Your task to perform on an android device: check the backup settings in the google photos Image 0: 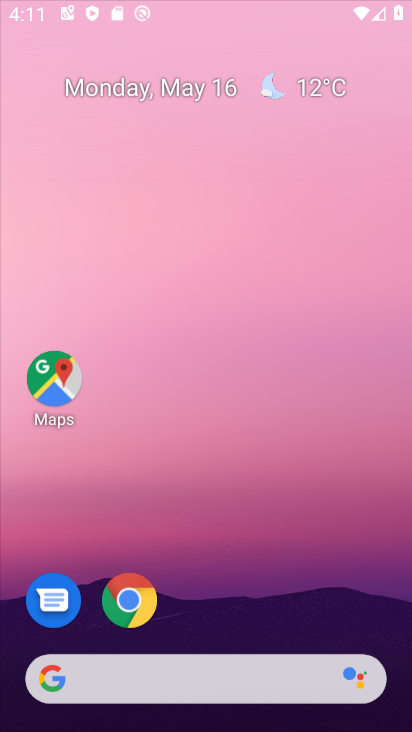
Step 0: drag from (165, 637) to (223, 395)
Your task to perform on an android device: check the backup settings in the google photos Image 1: 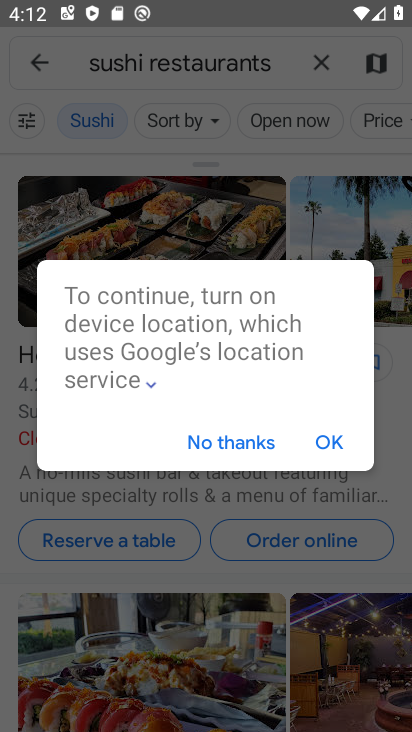
Step 1: press back button
Your task to perform on an android device: check the backup settings in the google photos Image 2: 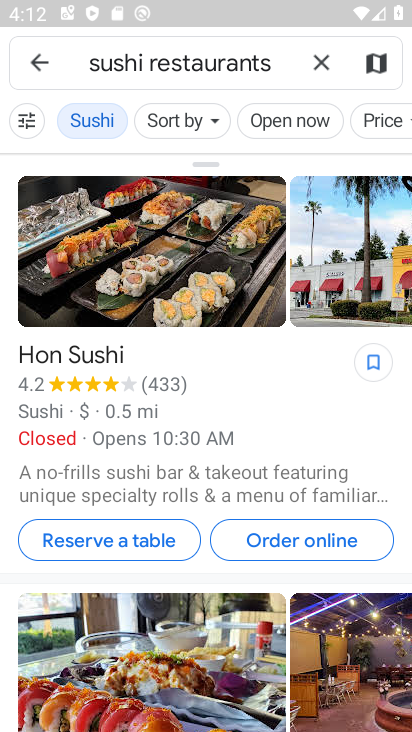
Step 2: press home button
Your task to perform on an android device: check the backup settings in the google photos Image 3: 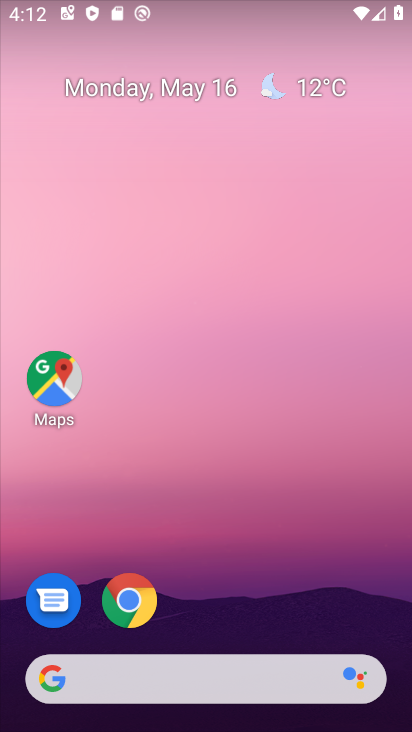
Step 3: drag from (194, 644) to (216, 307)
Your task to perform on an android device: check the backup settings in the google photos Image 4: 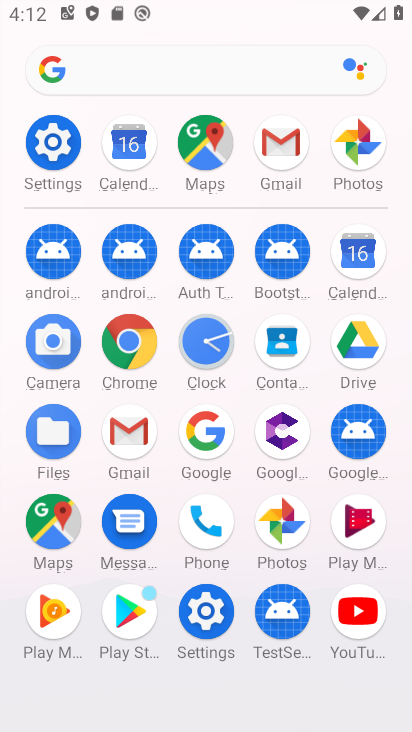
Step 4: click (298, 528)
Your task to perform on an android device: check the backup settings in the google photos Image 5: 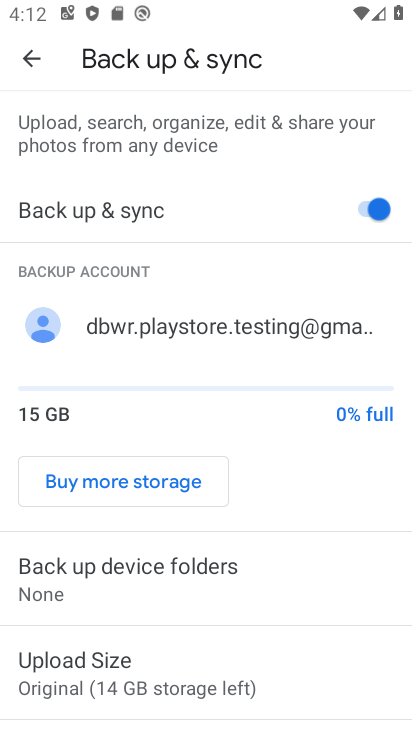
Step 5: press home button
Your task to perform on an android device: check the backup settings in the google photos Image 6: 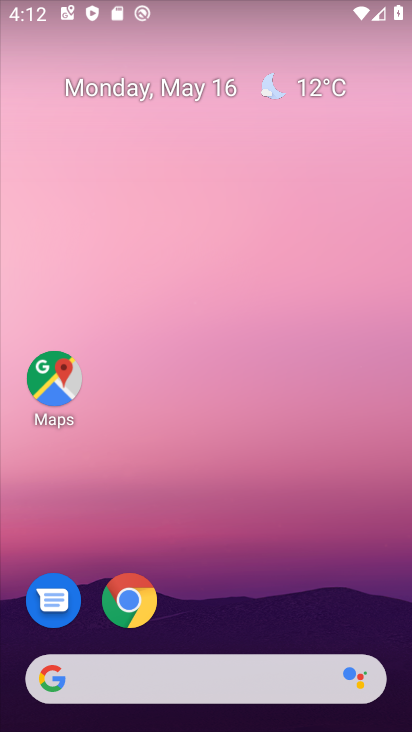
Step 6: drag from (186, 642) to (187, 253)
Your task to perform on an android device: check the backup settings in the google photos Image 7: 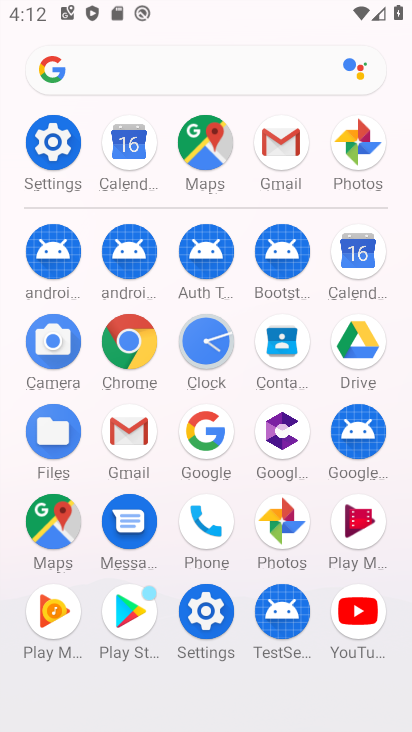
Step 7: click (280, 521)
Your task to perform on an android device: check the backup settings in the google photos Image 8: 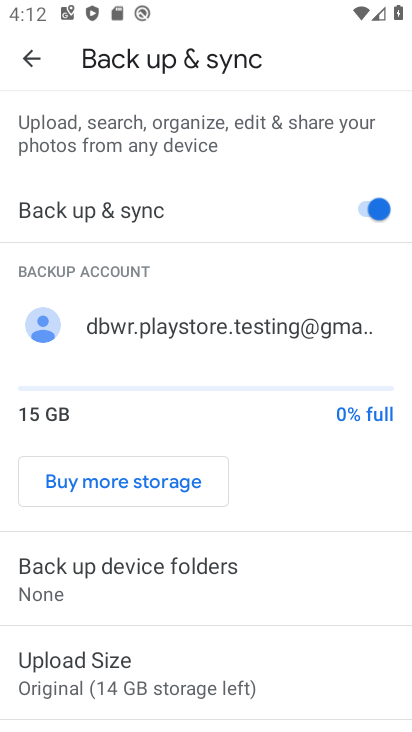
Step 8: task complete